Your task to perform on an android device: Check my email Image 0: 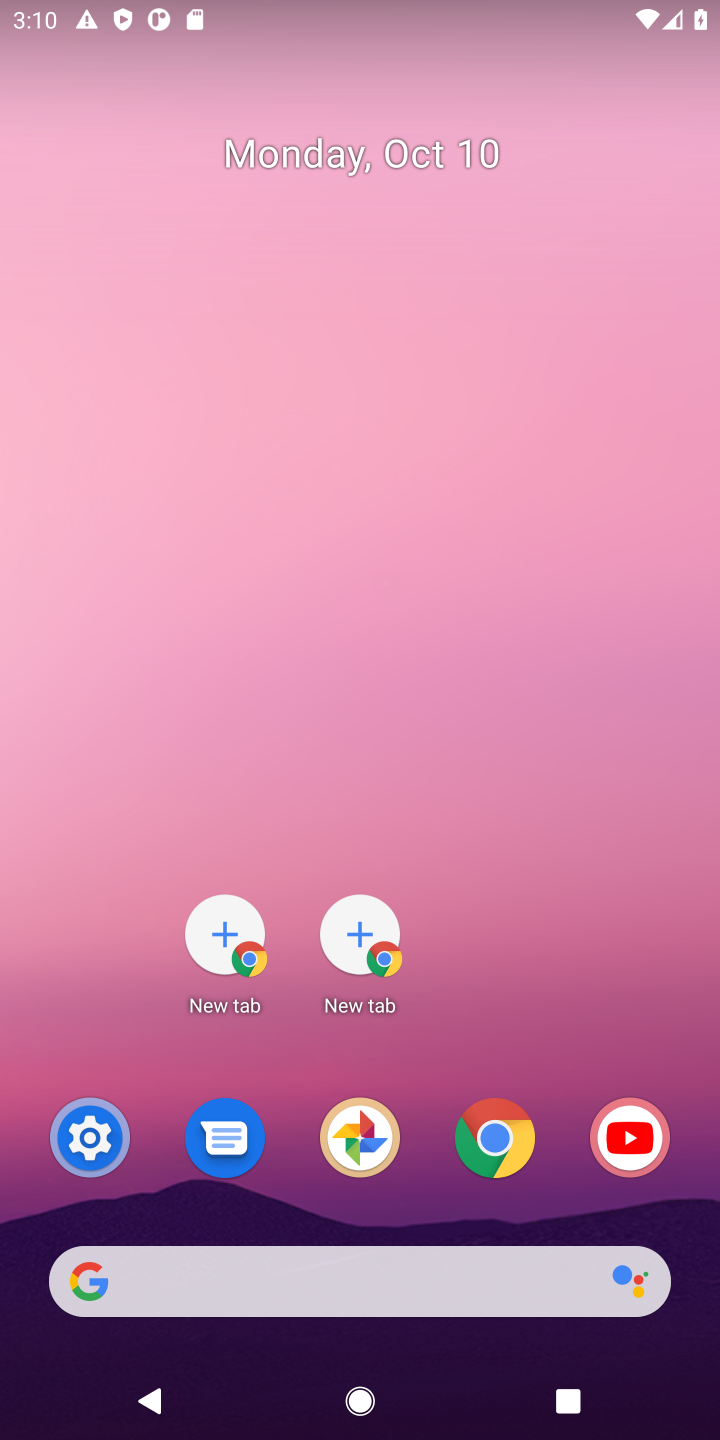
Step 0: click (503, 1151)
Your task to perform on an android device: Check my email Image 1: 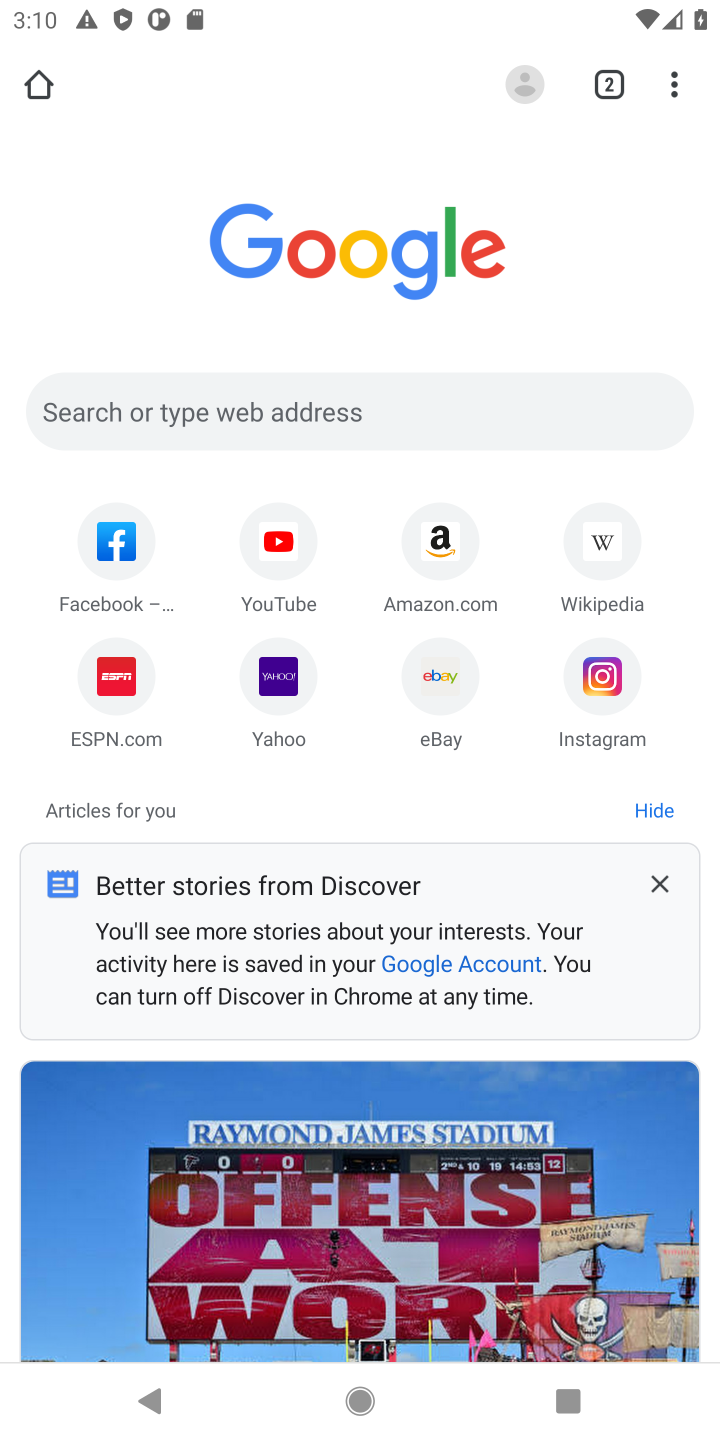
Step 1: press home button
Your task to perform on an android device: Check my email Image 2: 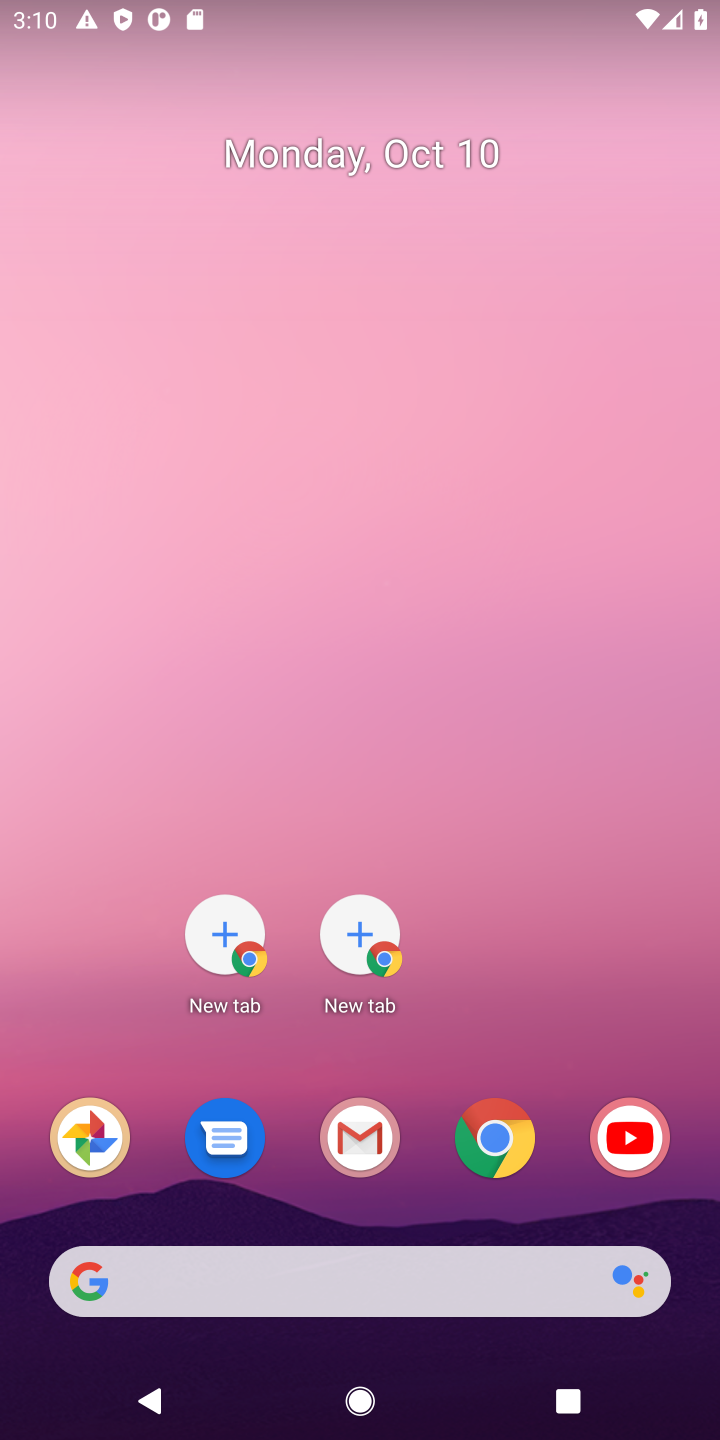
Step 2: drag from (425, 1010) to (425, 358)
Your task to perform on an android device: Check my email Image 3: 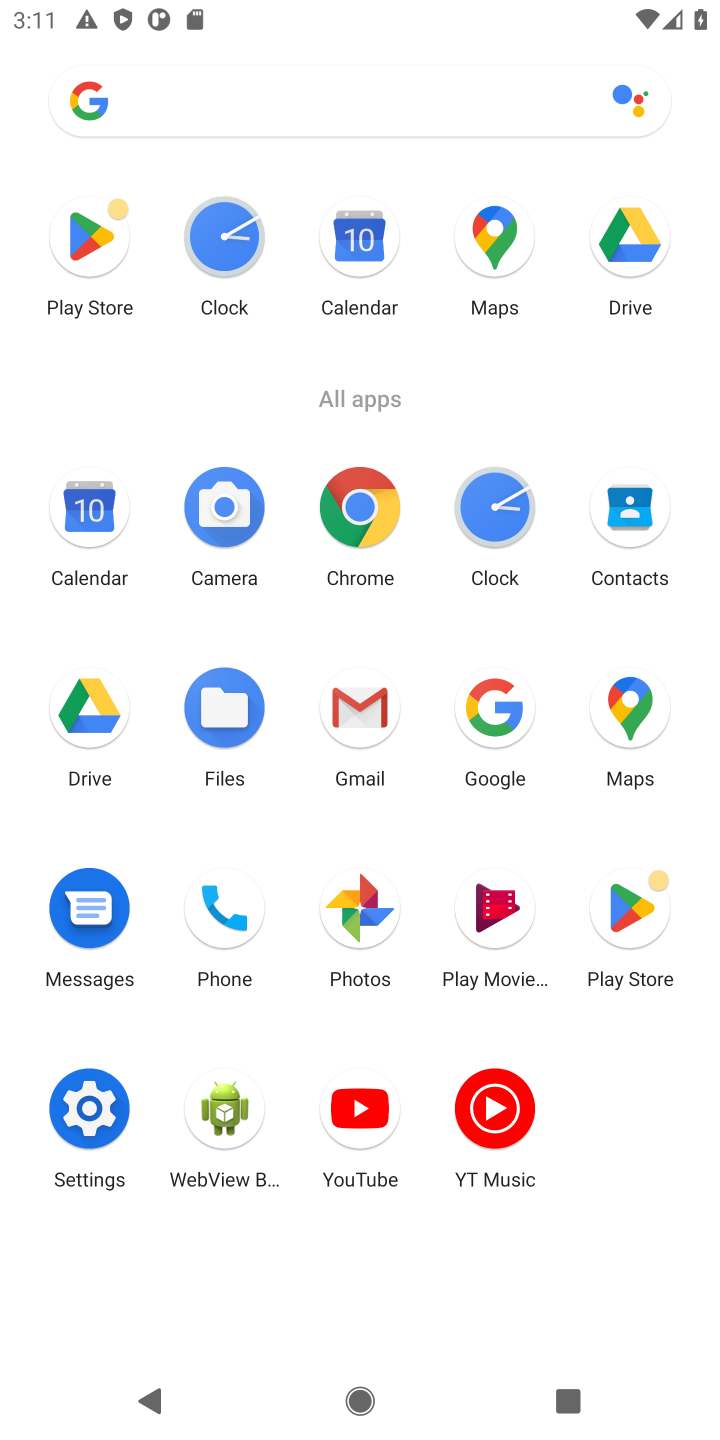
Step 3: click (363, 714)
Your task to perform on an android device: Check my email Image 4: 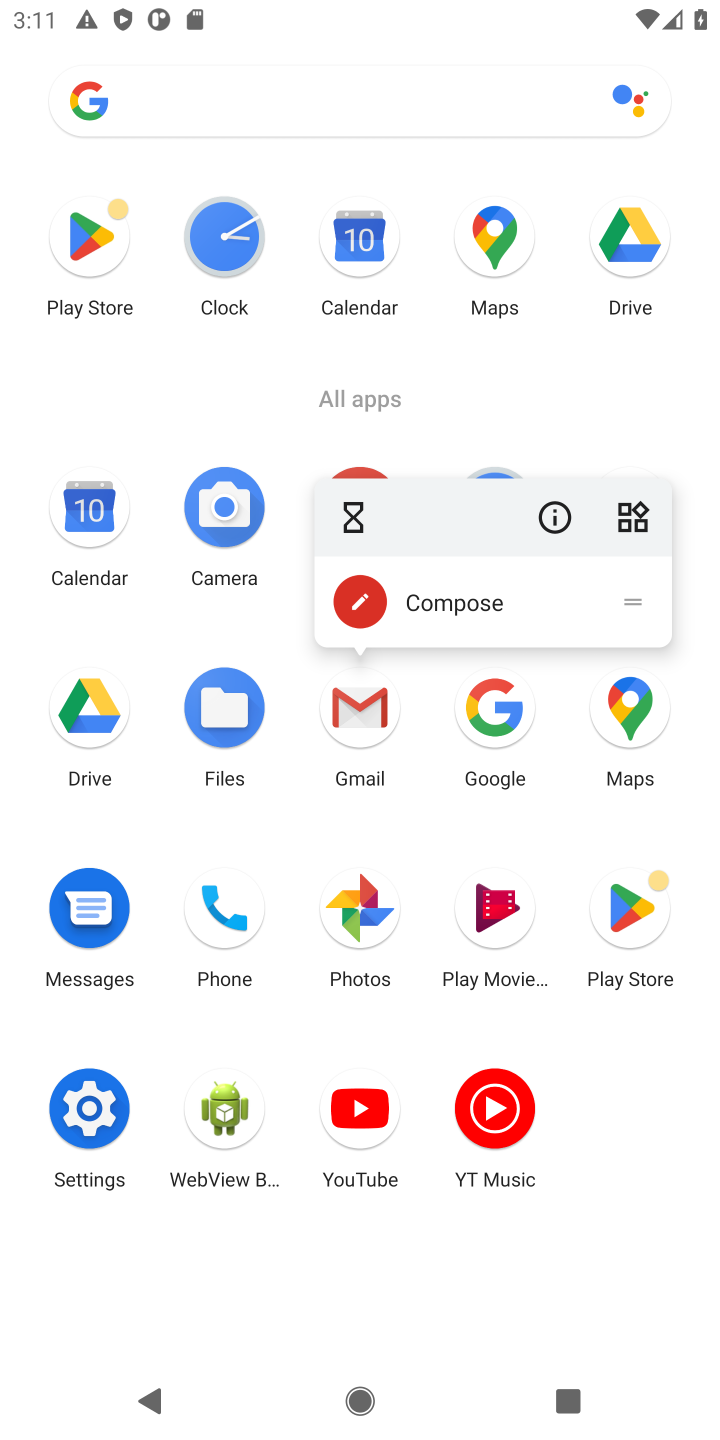
Step 4: click (363, 714)
Your task to perform on an android device: Check my email Image 5: 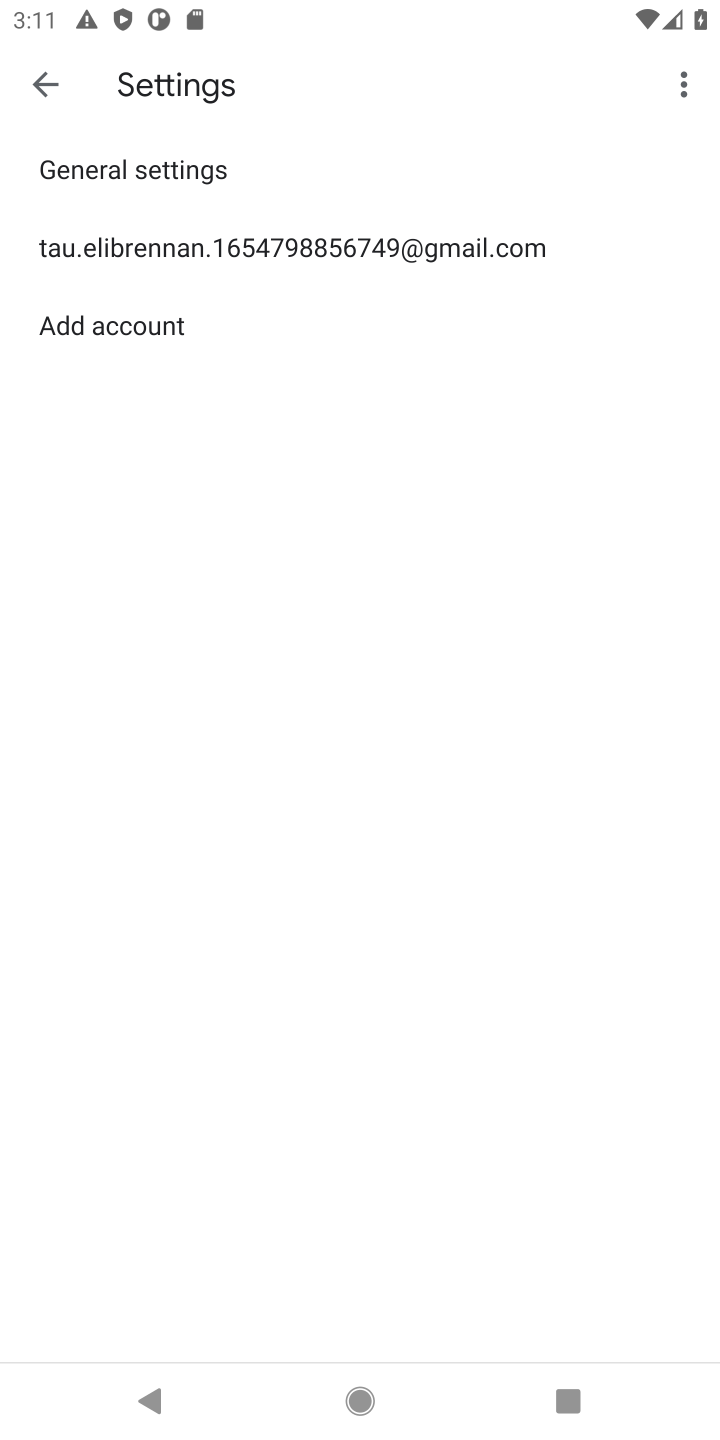
Step 5: click (216, 269)
Your task to perform on an android device: Check my email Image 6: 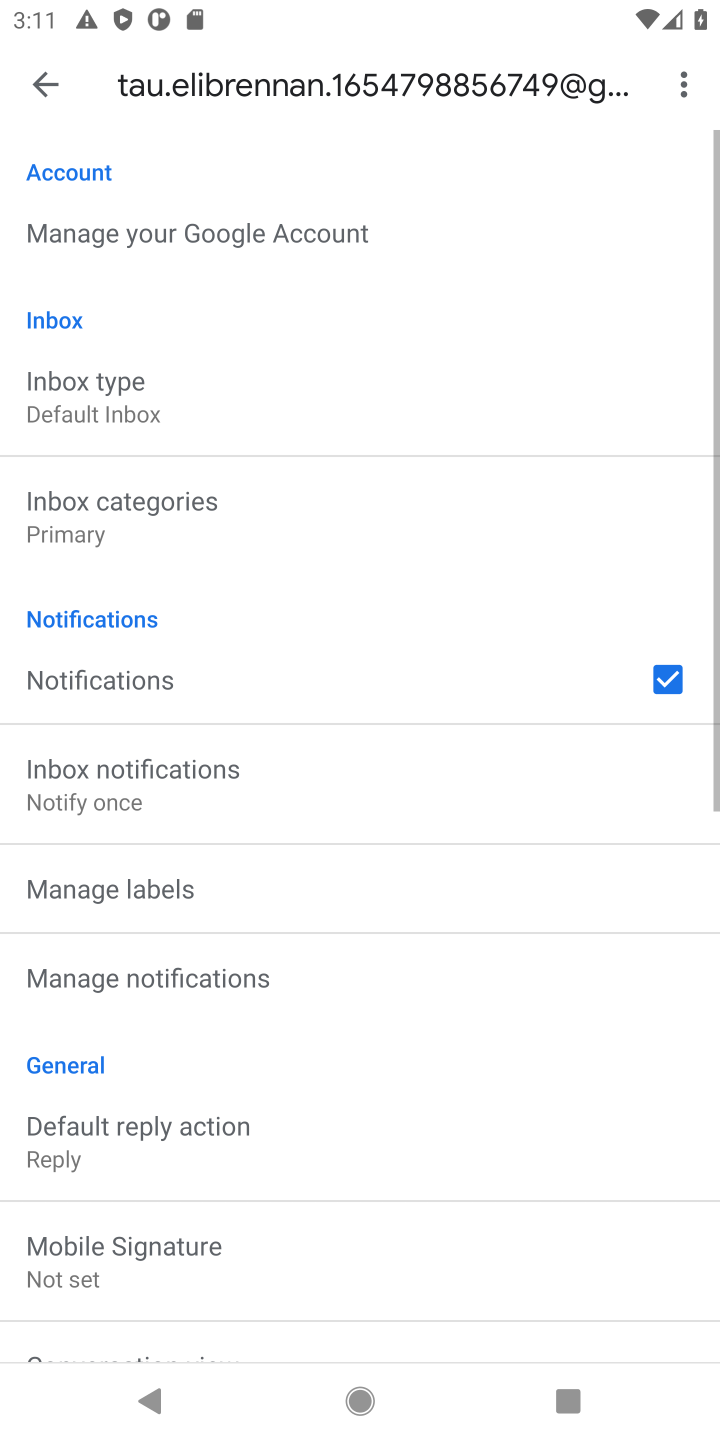
Step 6: click (38, 87)
Your task to perform on an android device: Check my email Image 7: 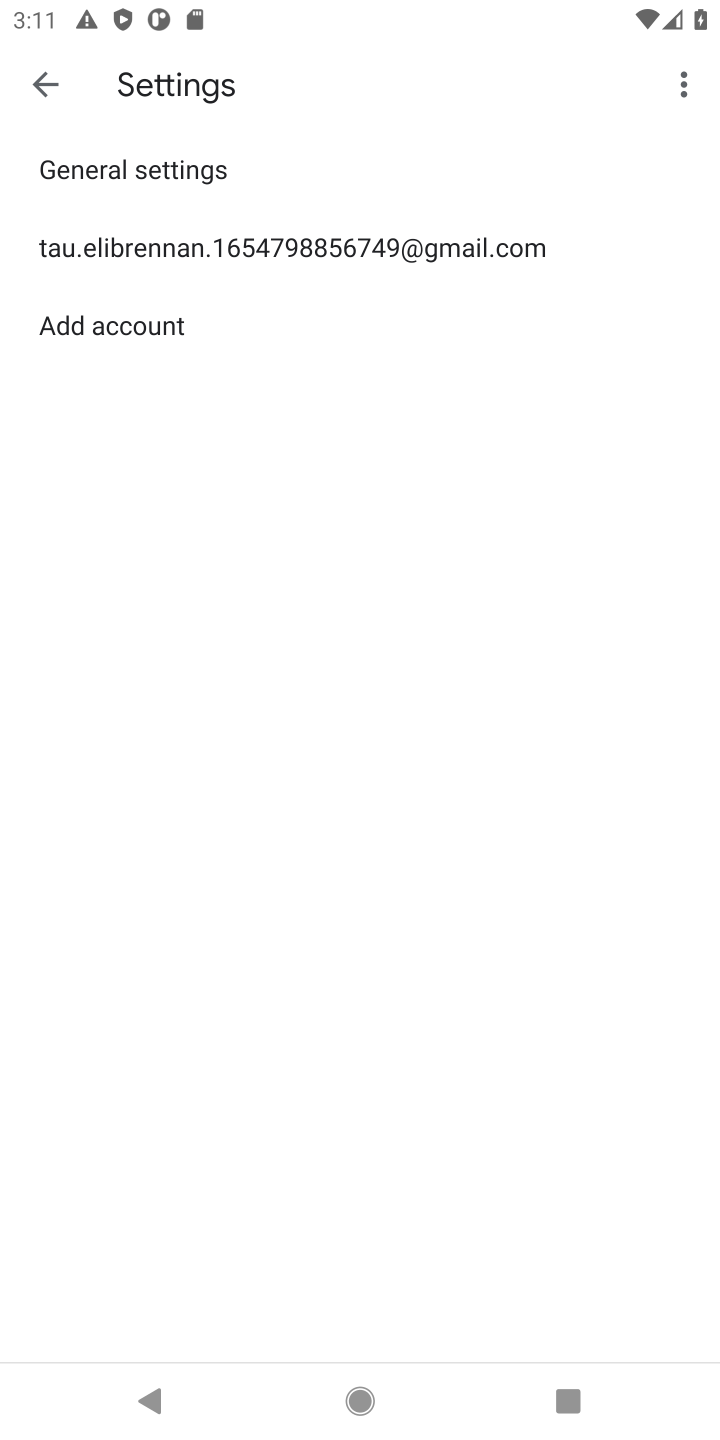
Step 7: click (38, 87)
Your task to perform on an android device: Check my email Image 8: 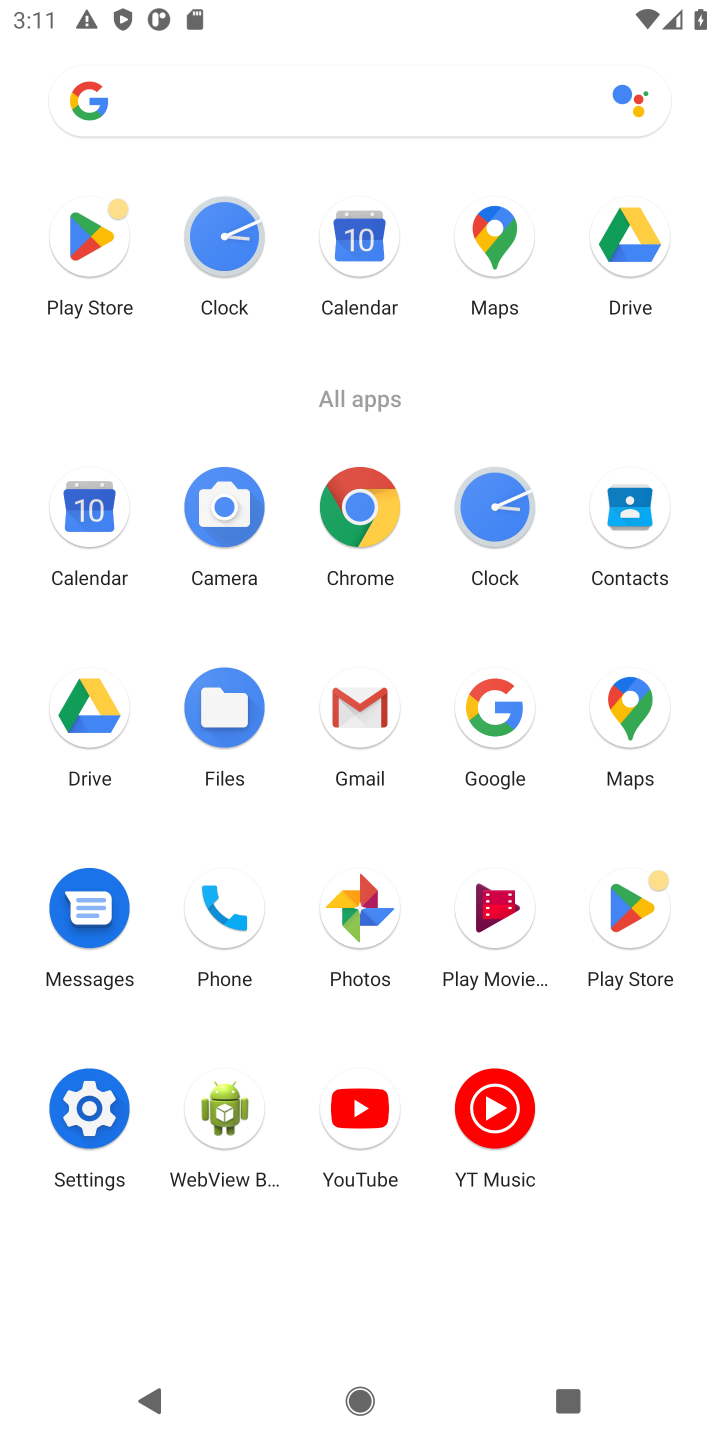
Step 8: click (354, 721)
Your task to perform on an android device: Check my email Image 9: 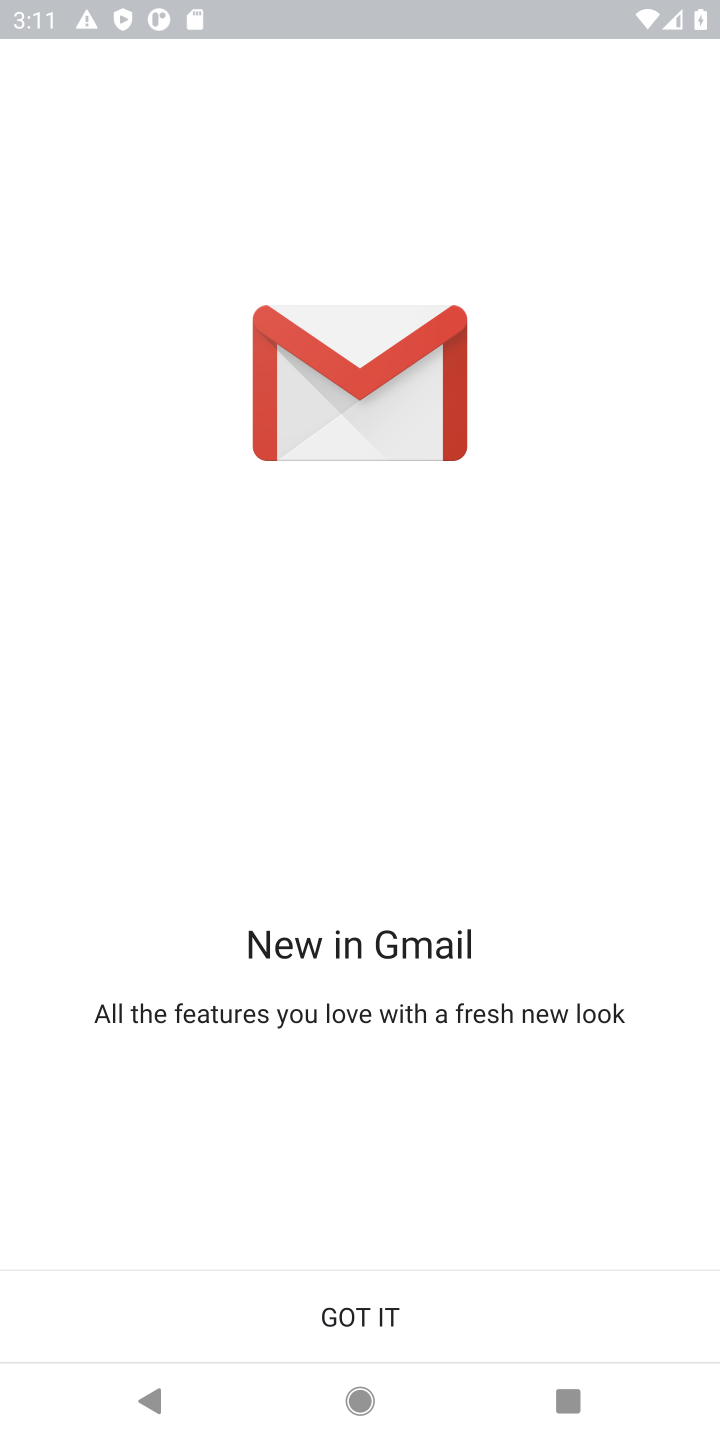
Step 9: click (412, 1330)
Your task to perform on an android device: Check my email Image 10: 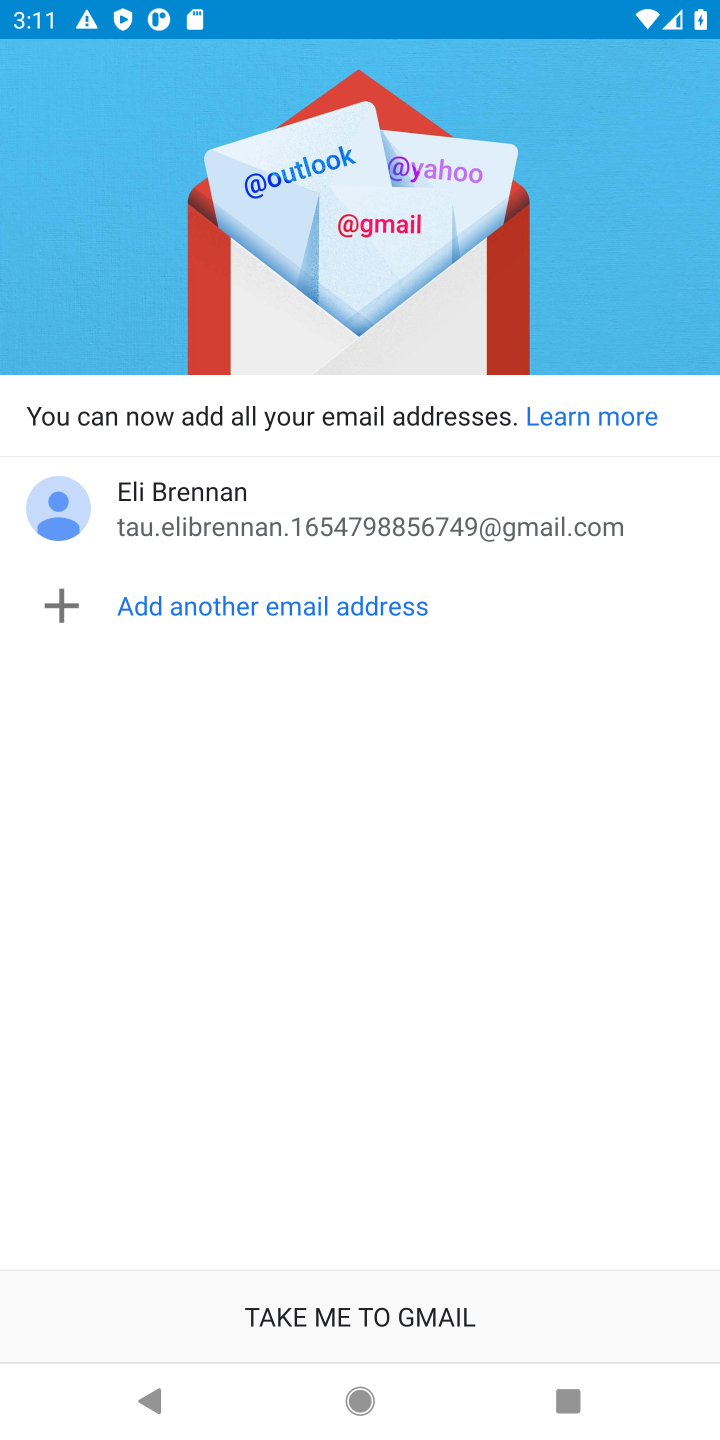
Step 10: click (338, 488)
Your task to perform on an android device: Check my email Image 11: 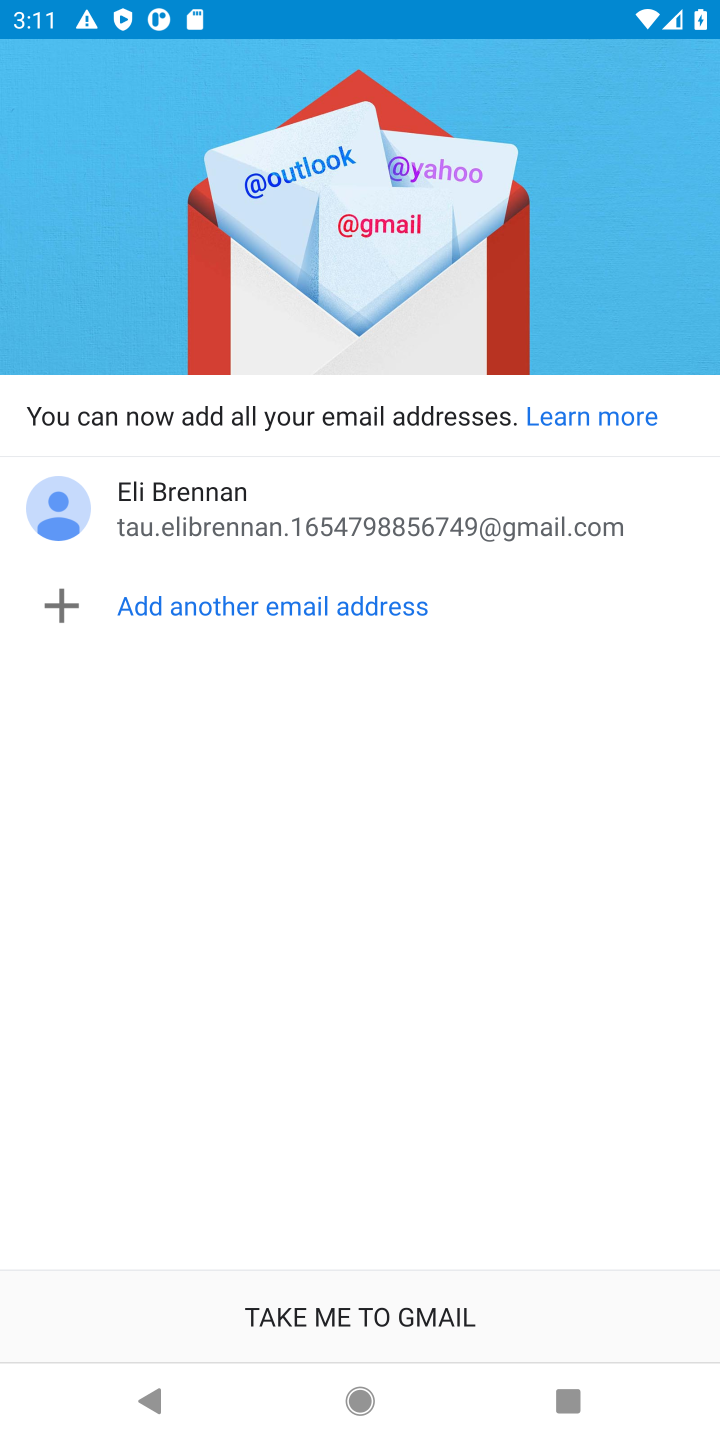
Step 11: click (412, 1317)
Your task to perform on an android device: Check my email Image 12: 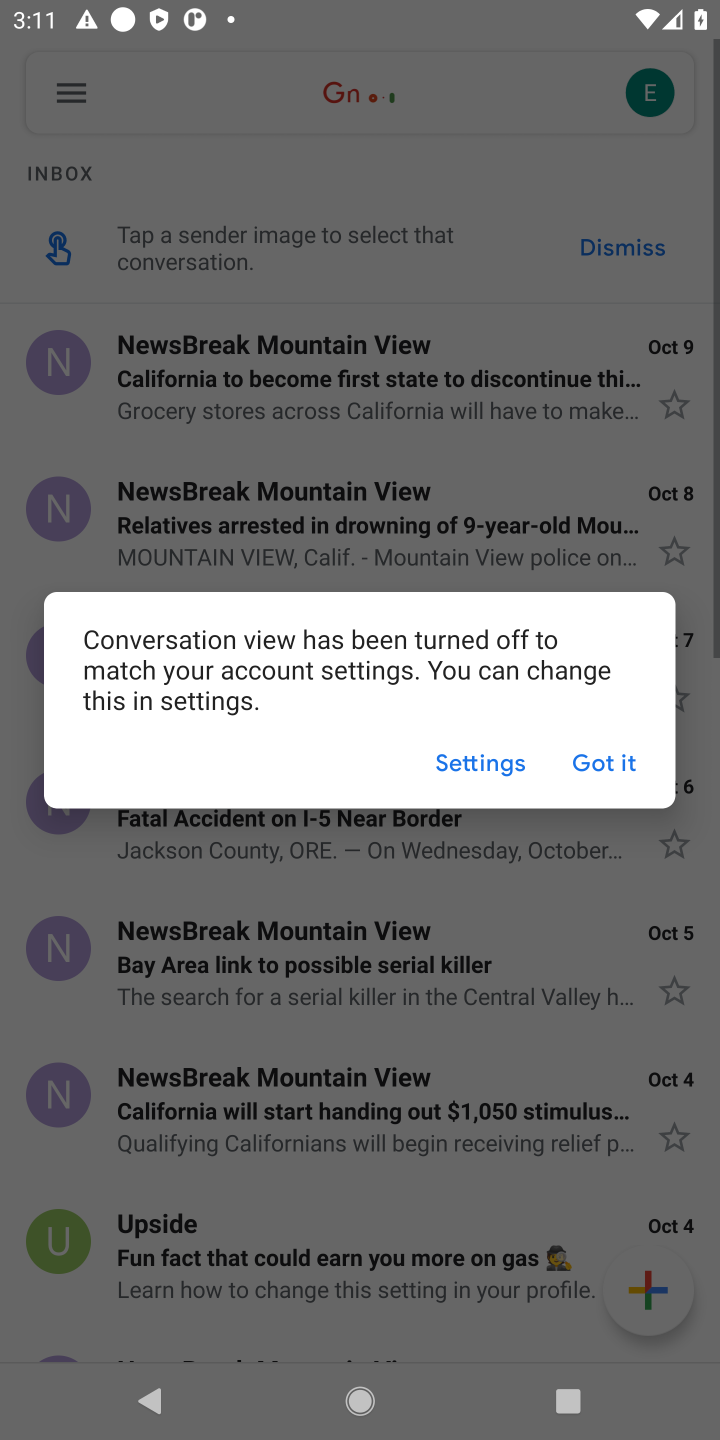
Step 12: click (619, 758)
Your task to perform on an android device: Check my email Image 13: 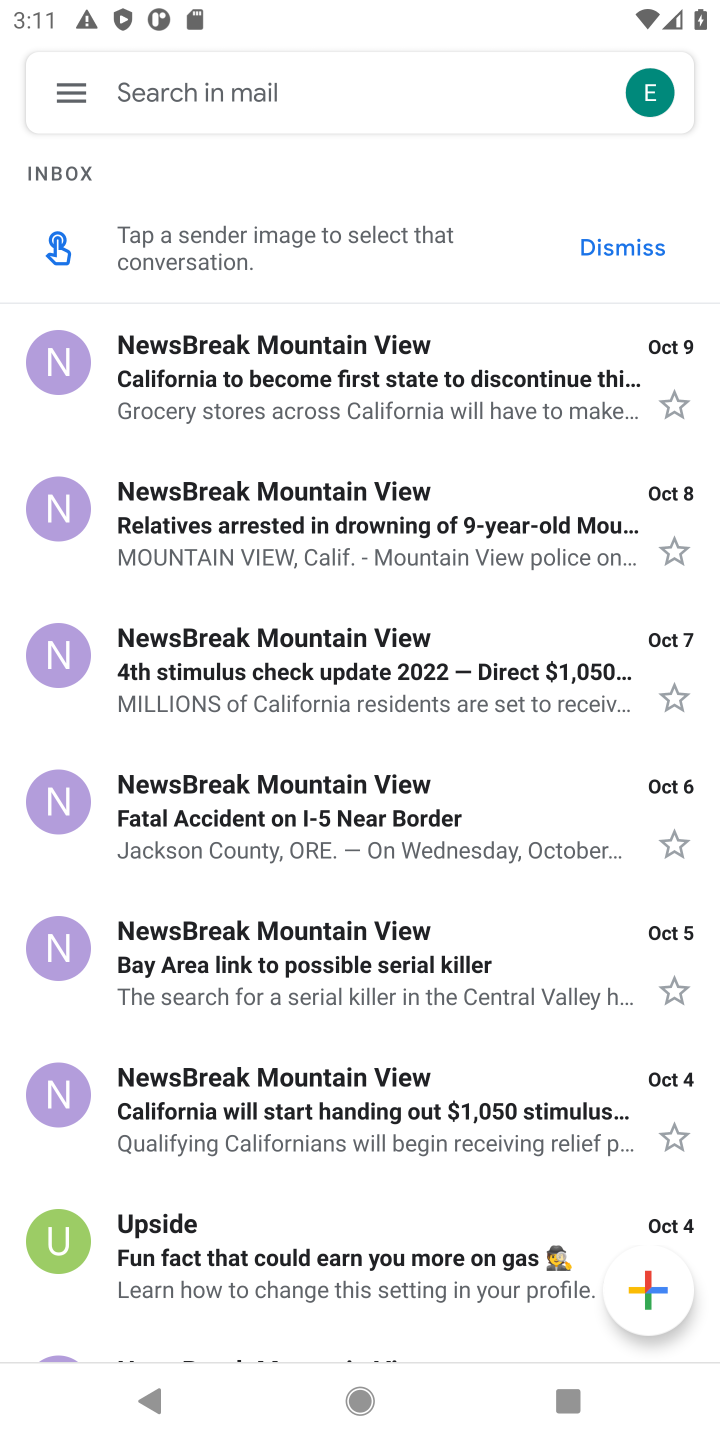
Step 13: drag from (479, 1150) to (455, 603)
Your task to perform on an android device: Check my email Image 14: 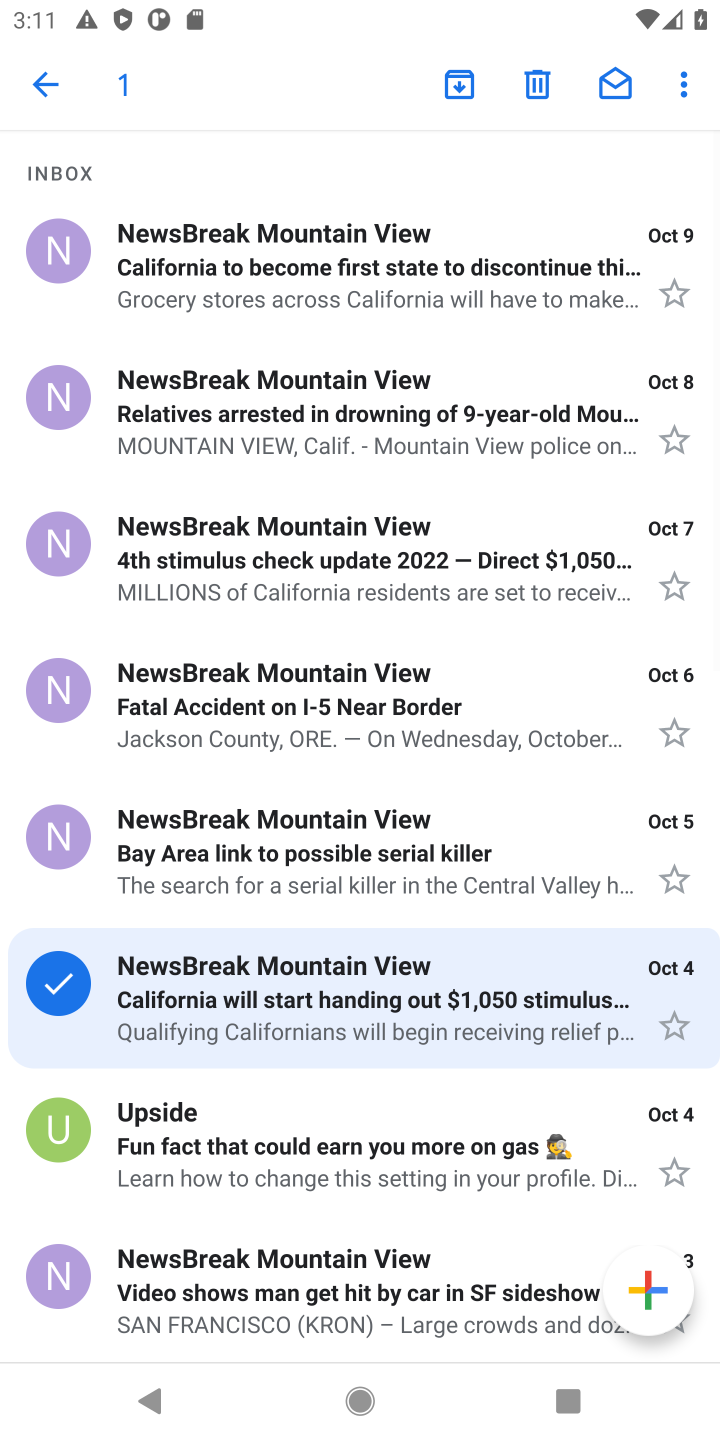
Step 14: click (51, 976)
Your task to perform on an android device: Check my email Image 15: 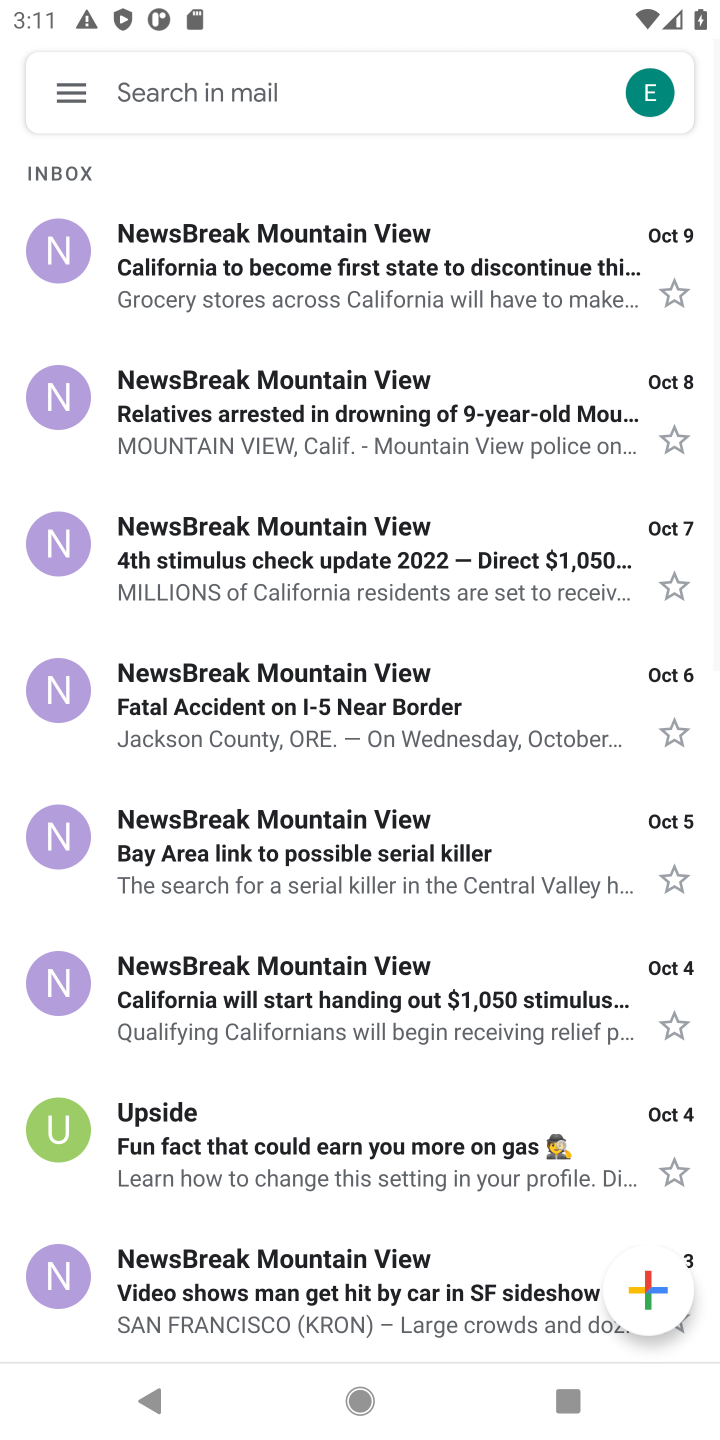
Step 15: drag from (323, 1240) to (327, 202)
Your task to perform on an android device: Check my email Image 16: 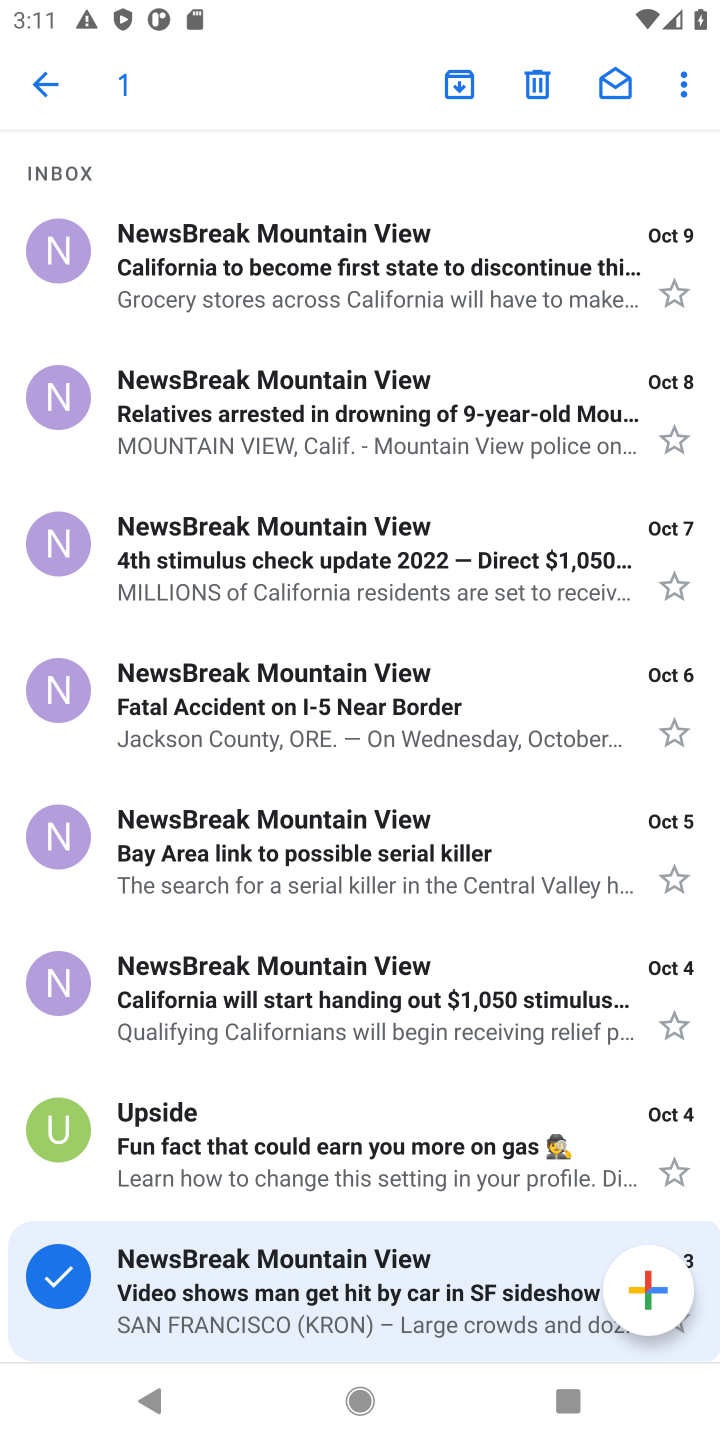
Step 16: click (61, 1285)
Your task to perform on an android device: Check my email Image 17: 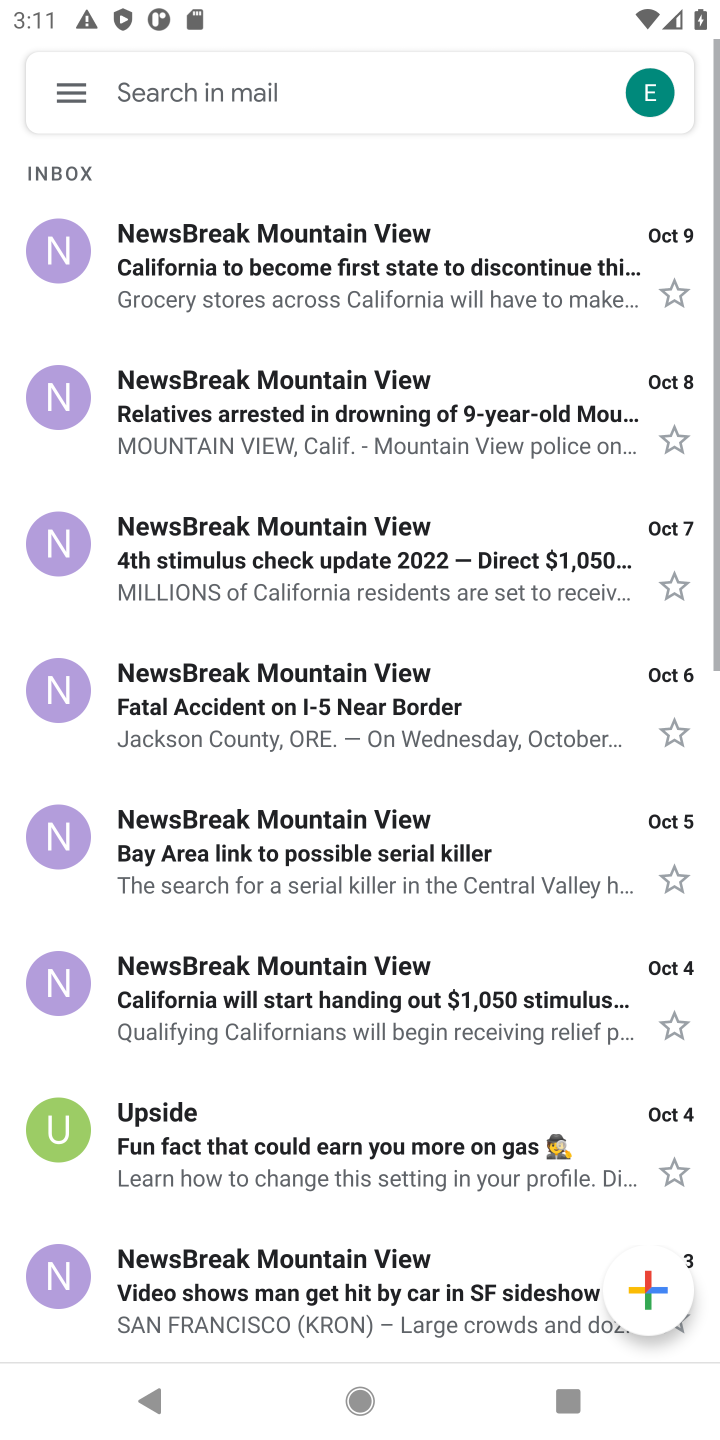
Step 17: drag from (488, 1091) to (471, 376)
Your task to perform on an android device: Check my email Image 18: 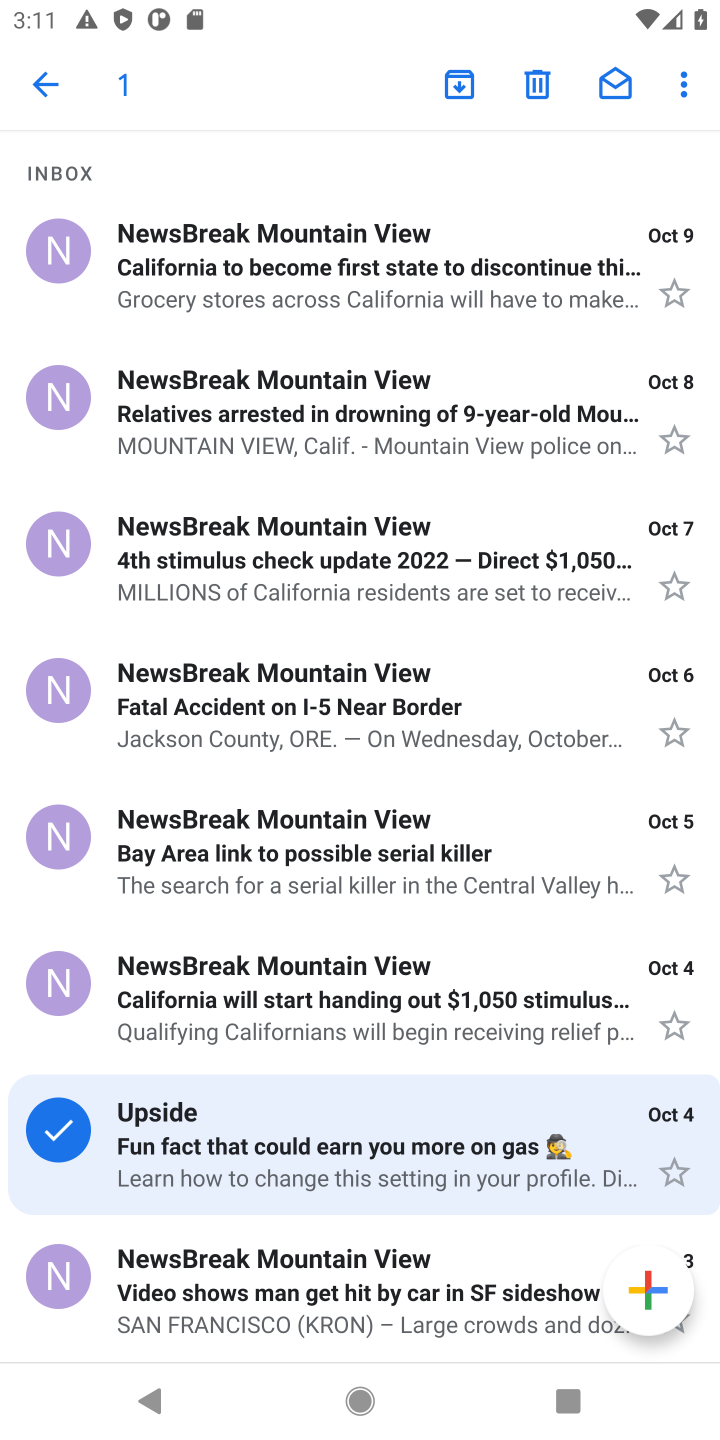
Step 18: click (53, 1146)
Your task to perform on an android device: Check my email Image 19: 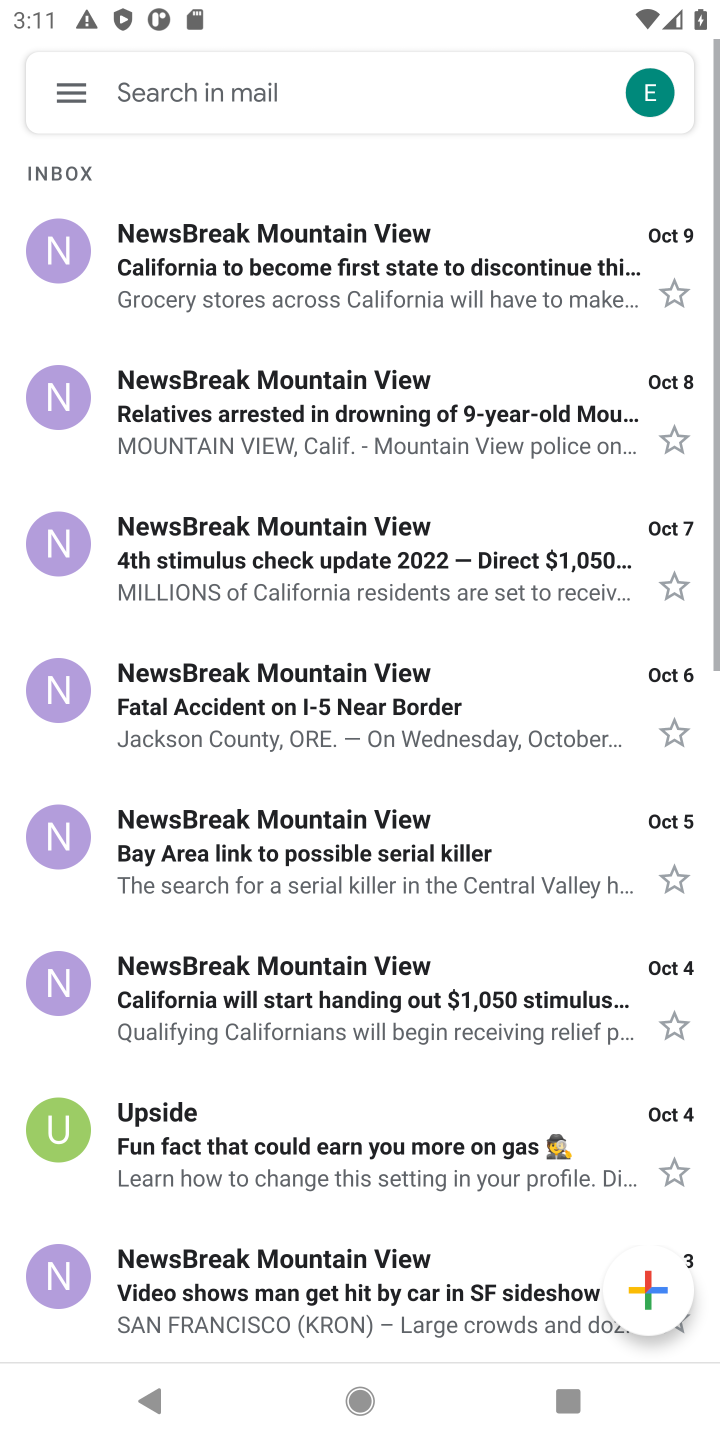
Step 19: drag from (446, 439) to (527, 1073)
Your task to perform on an android device: Check my email Image 20: 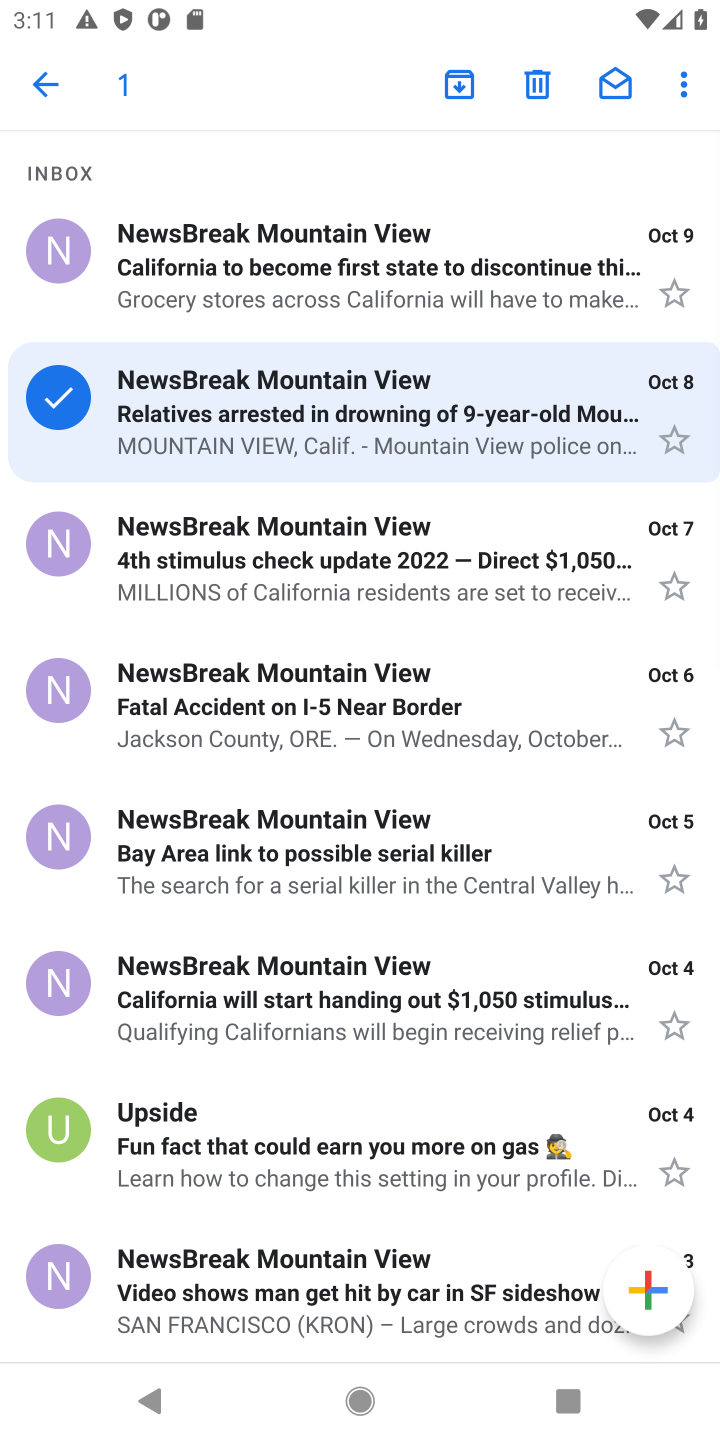
Step 20: click (70, 385)
Your task to perform on an android device: Check my email Image 21: 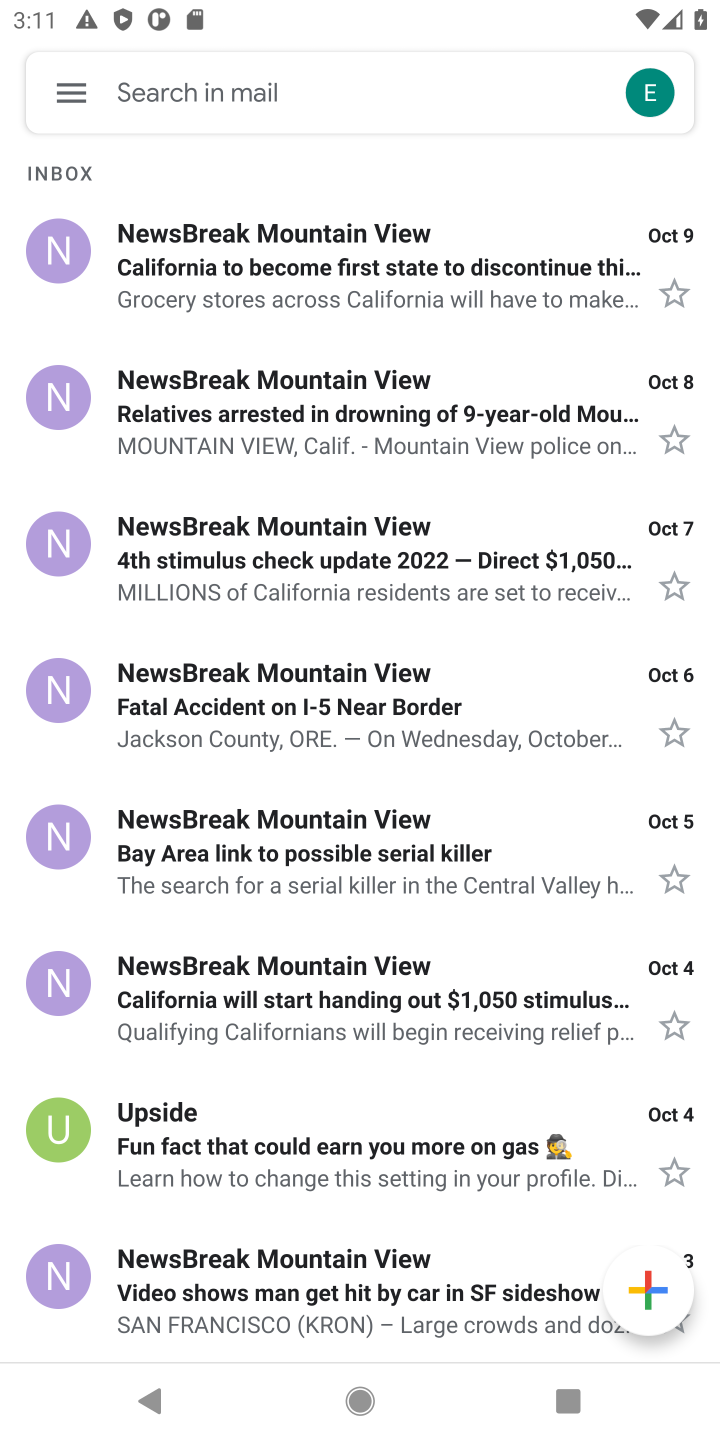
Step 21: task complete